Your task to perform on an android device: stop showing notifications on the lock screen Image 0: 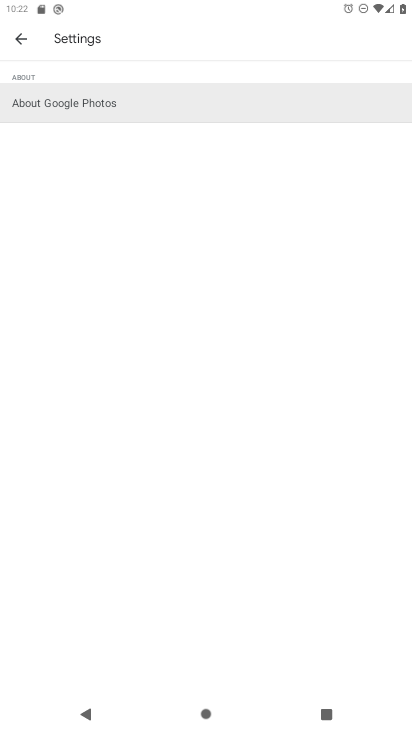
Step 0: press home button
Your task to perform on an android device: stop showing notifications on the lock screen Image 1: 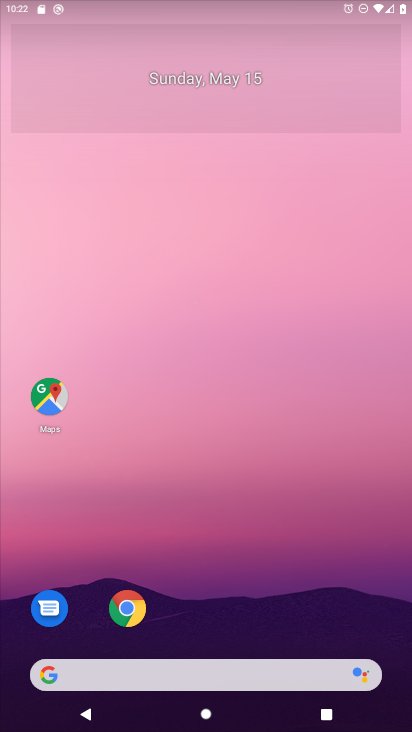
Step 1: drag from (372, 625) to (365, 180)
Your task to perform on an android device: stop showing notifications on the lock screen Image 2: 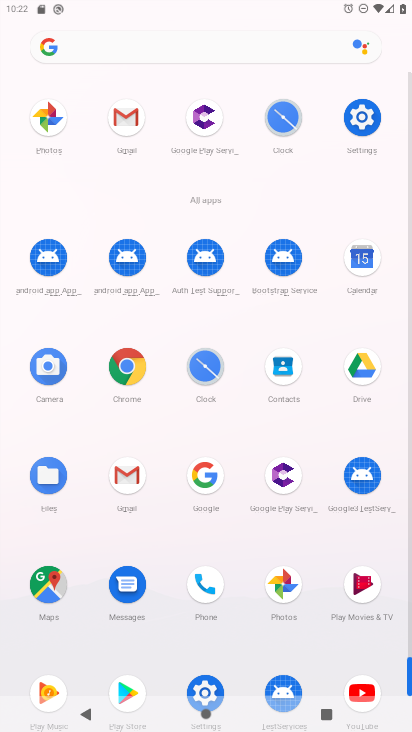
Step 2: click (362, 115)
Your task to perform on an android device: stop showing notifications on the lock screen Image 3: 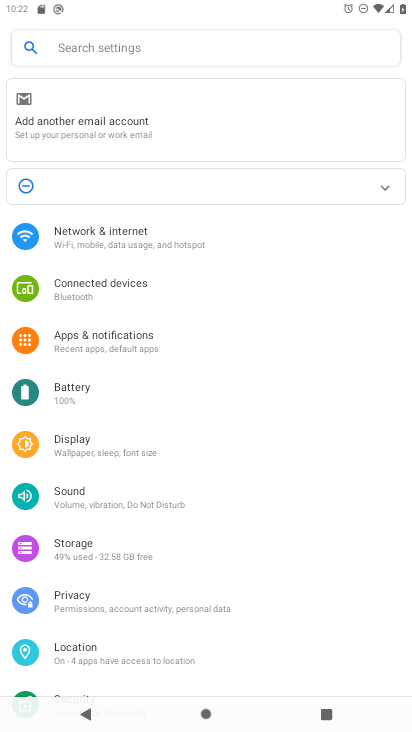
Step 3: drag from (239, 679) to (250, 444)
Your task to perform on an android device: stop showing notifications on the lock screen Image 4: 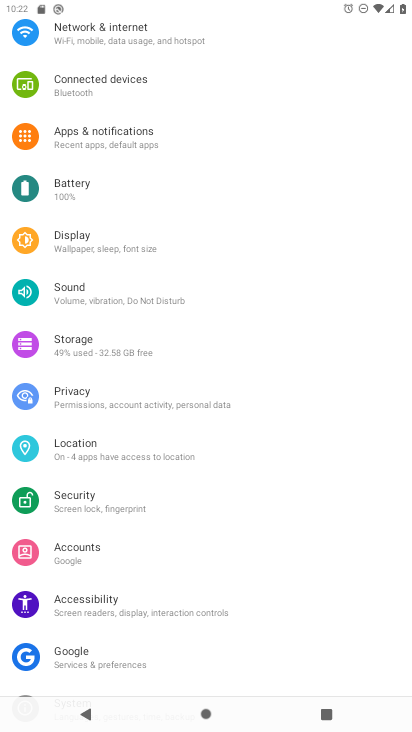
Step 4: click (161, 134)
Your task to perform on an android device: stop showing notifications on the lock screen Image 5: 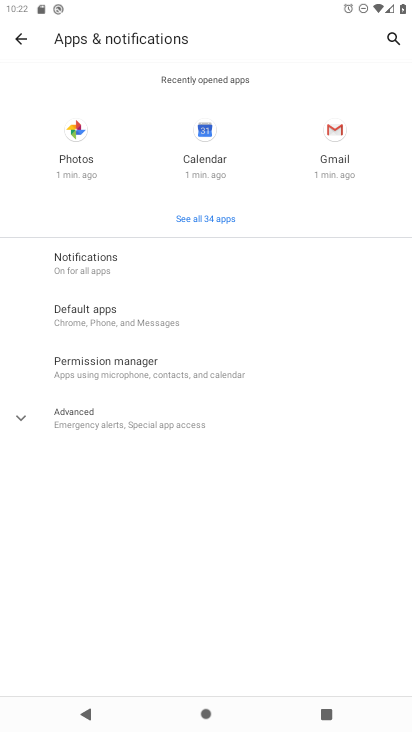
Step 5: click (116, 267)
Your task to perform on an android device: stop showing notifications on the lock screen Image 6: 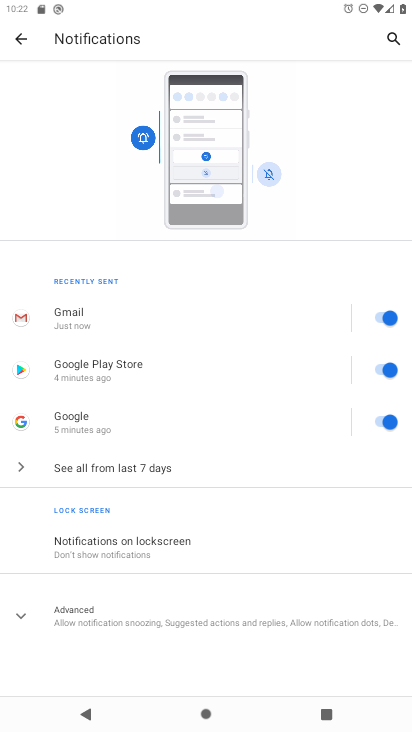
Step 6: click (139, 547)
Your task to perform on an android device: stop showing notifications on the lock screen Image 7: 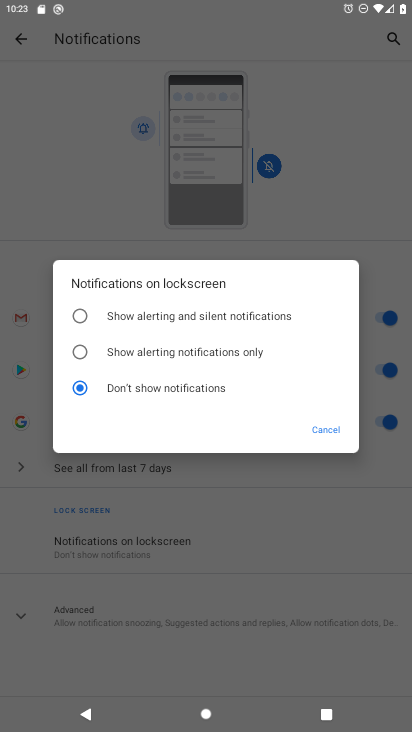
Step 7: task complete